Your task to perform on an android device: Go to privacy settings Image 0: 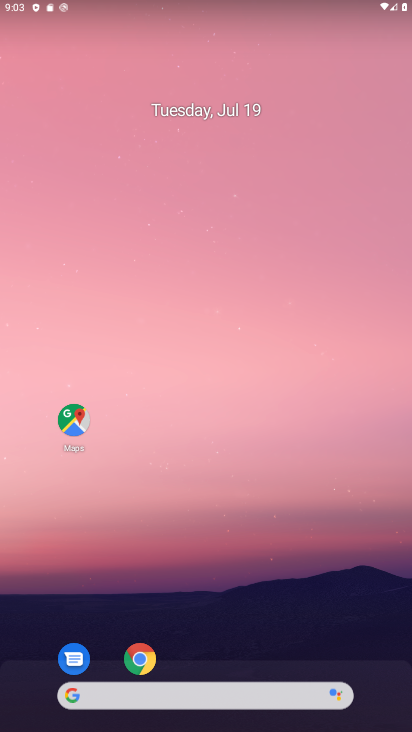
Step 0: click (151, 649)
Your task to perform on an android device: Go to privacy settings Image 1: 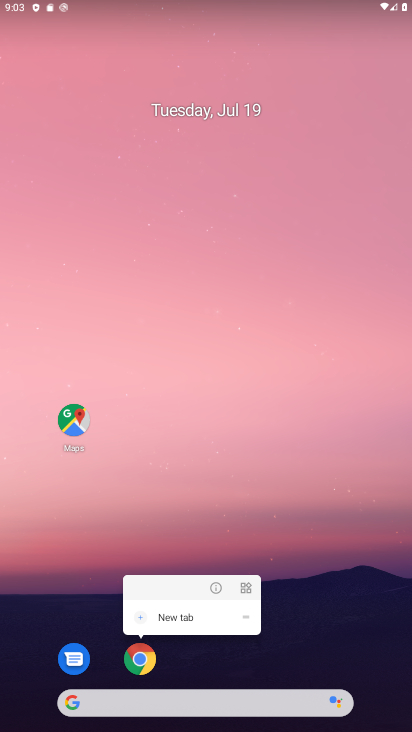
Step 1: click (147, 661)
Your task to perform on an android device: Go to privacy settings Image 2: 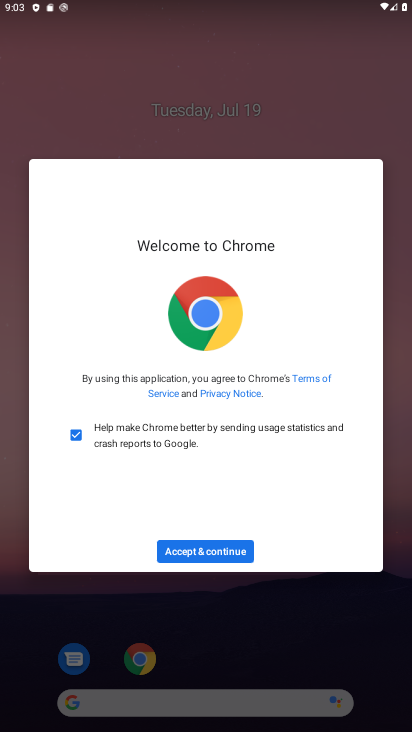
Step 2: click (237, 560)
Your task to perform on an android device: Go to privacy settings Image 3: 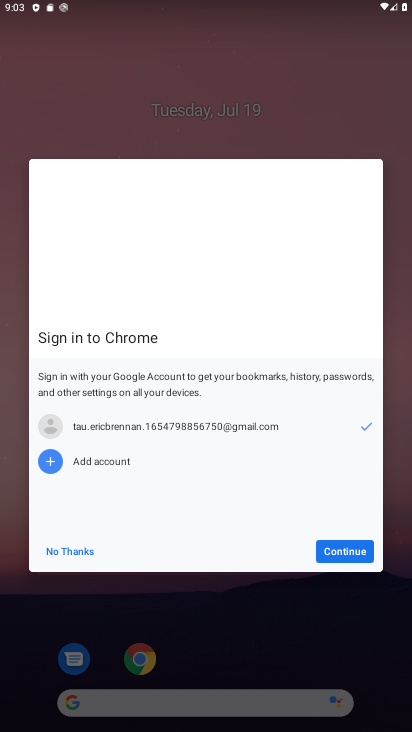
Step 3: click (351, 559)
Your task to perform on an android device: Go to privacy settings Image 4: 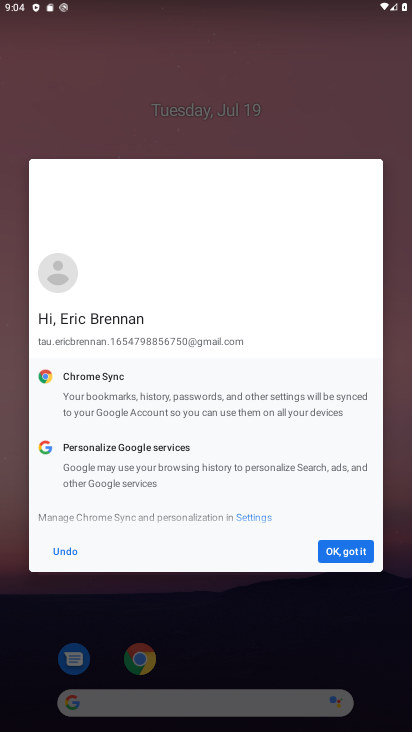
Step 4: click (352, 559)
Your task to perform on an android device: Go to privacy settings Image 5: 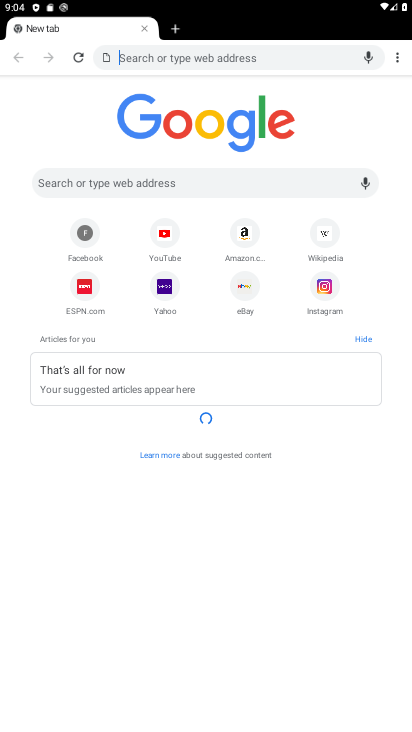
Step 5: drag from (400, 60) to (315, 258)
Your task to perform on an android device: Go to privacy settings Image 6: 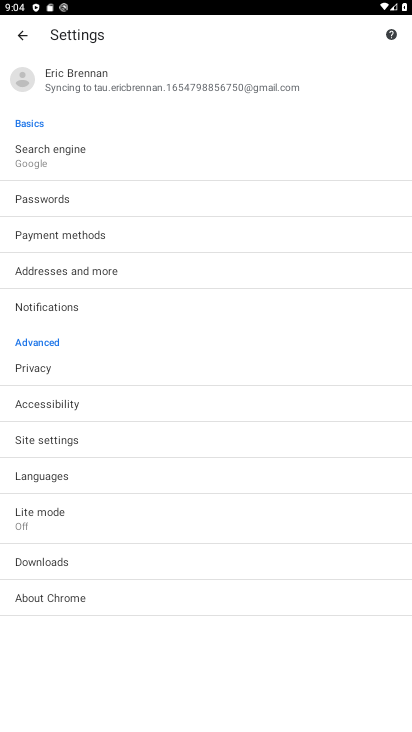
Step 6: click (80, 361)
Your task to perform on an android device: Go to privacy settings Image 7: 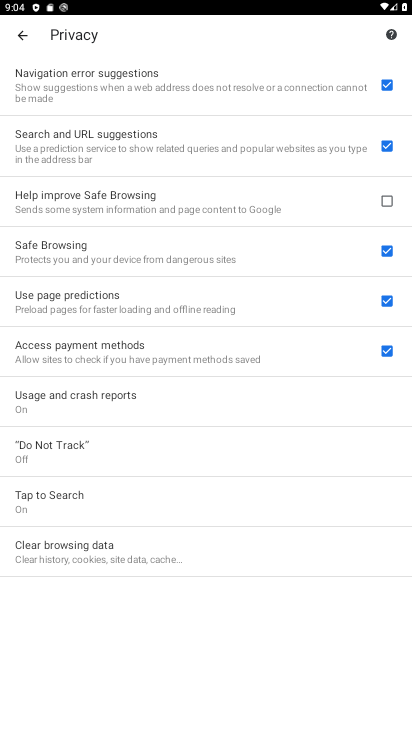
Step 7: task complete